Your task to perform on an android device: Nike Air Max 2020 shoes on Nike.com Image 0: 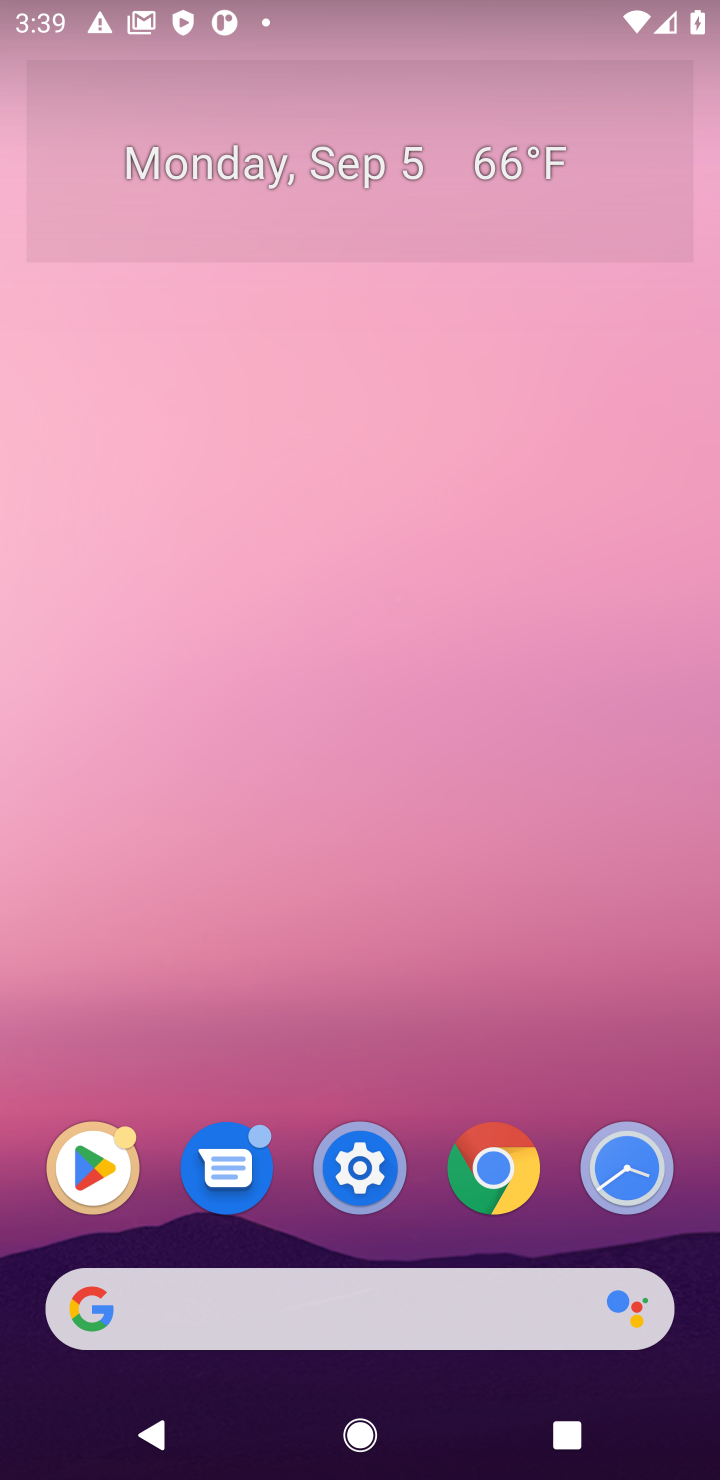
Step 0: click (310, 1309)
Your task to perform on an android device: Nike Air Max 2020 shoes on Nike.com Image 1: 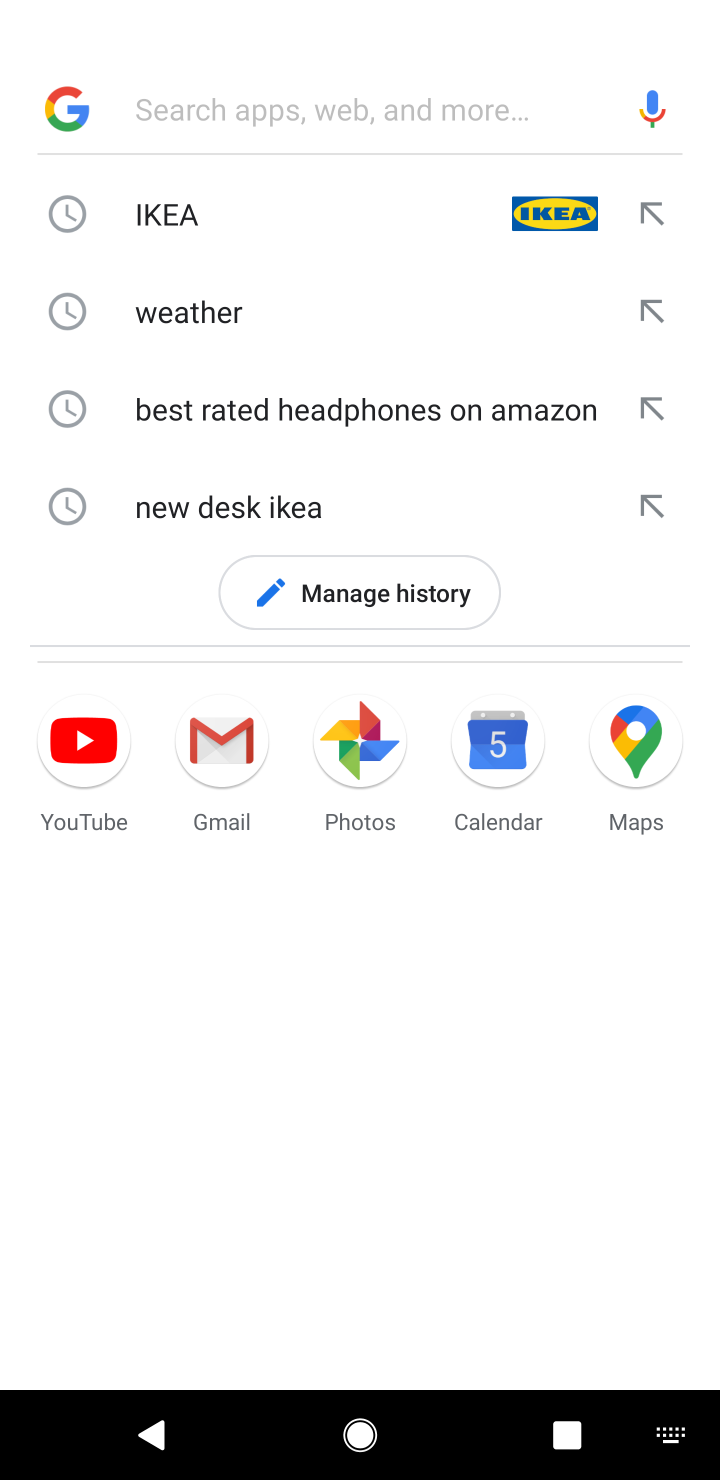
Step 1: type "nike"
Your task to perform on an android device: Nike Air Max 2020 shoes on Nike.com Image 2: 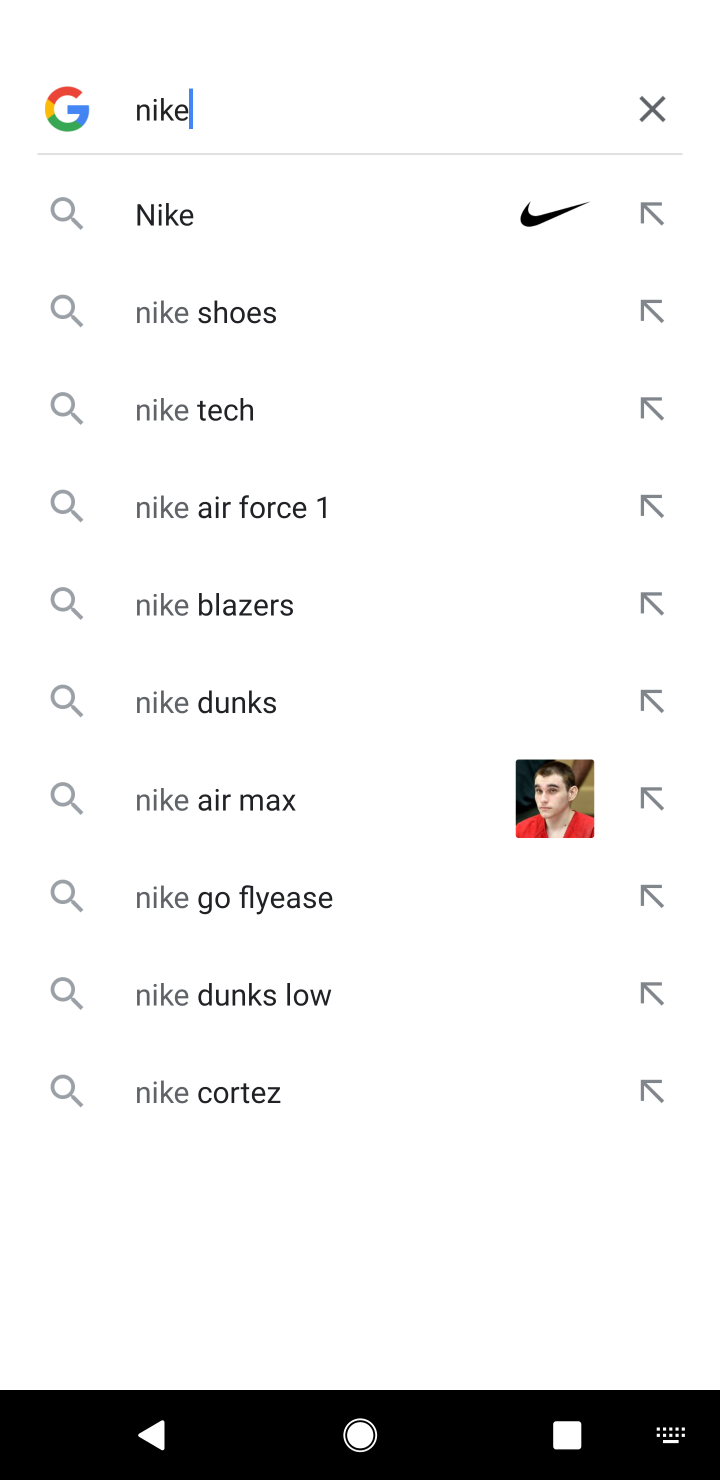
Step 2: click (535, 204)
Your task to perform on an android device: Nike Air Max 2020 shoes on Nike.com Image 3: 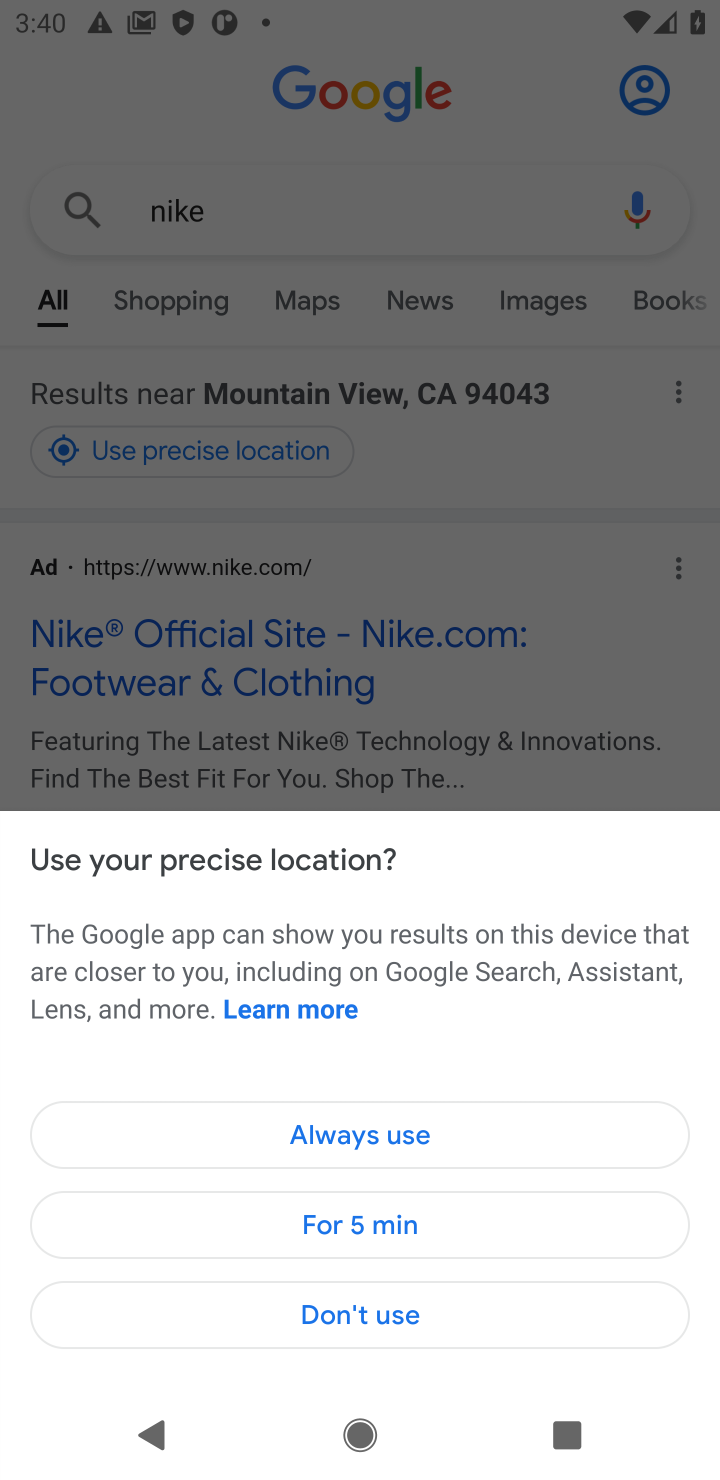
Step 3: click (386, 1144)
Your task to perform on an android device: Nike Air Max 2020 shoes on Nike.com Image 4: 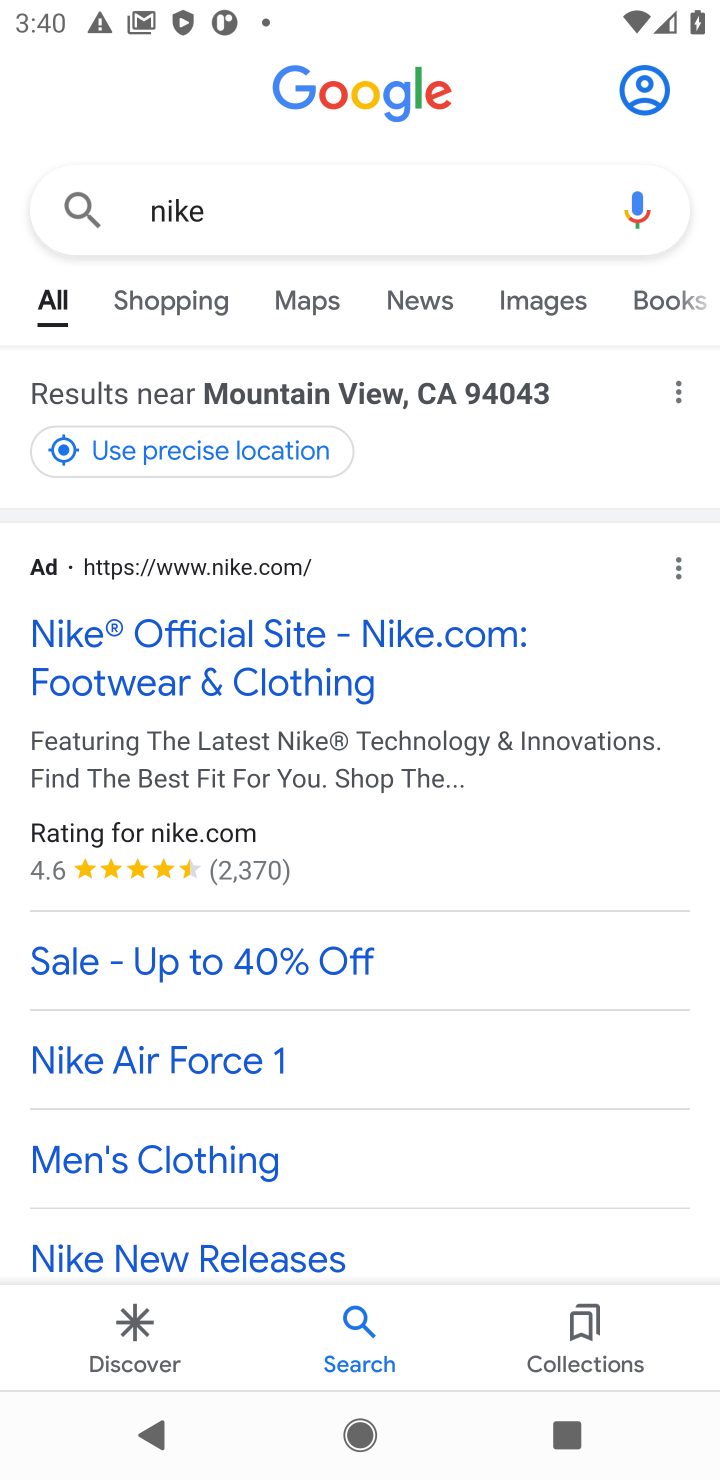
Step 4: click (319, 659)
Your task to perform on an android device: Nike Air Max 2020 shoes on Nike.com Image 5: 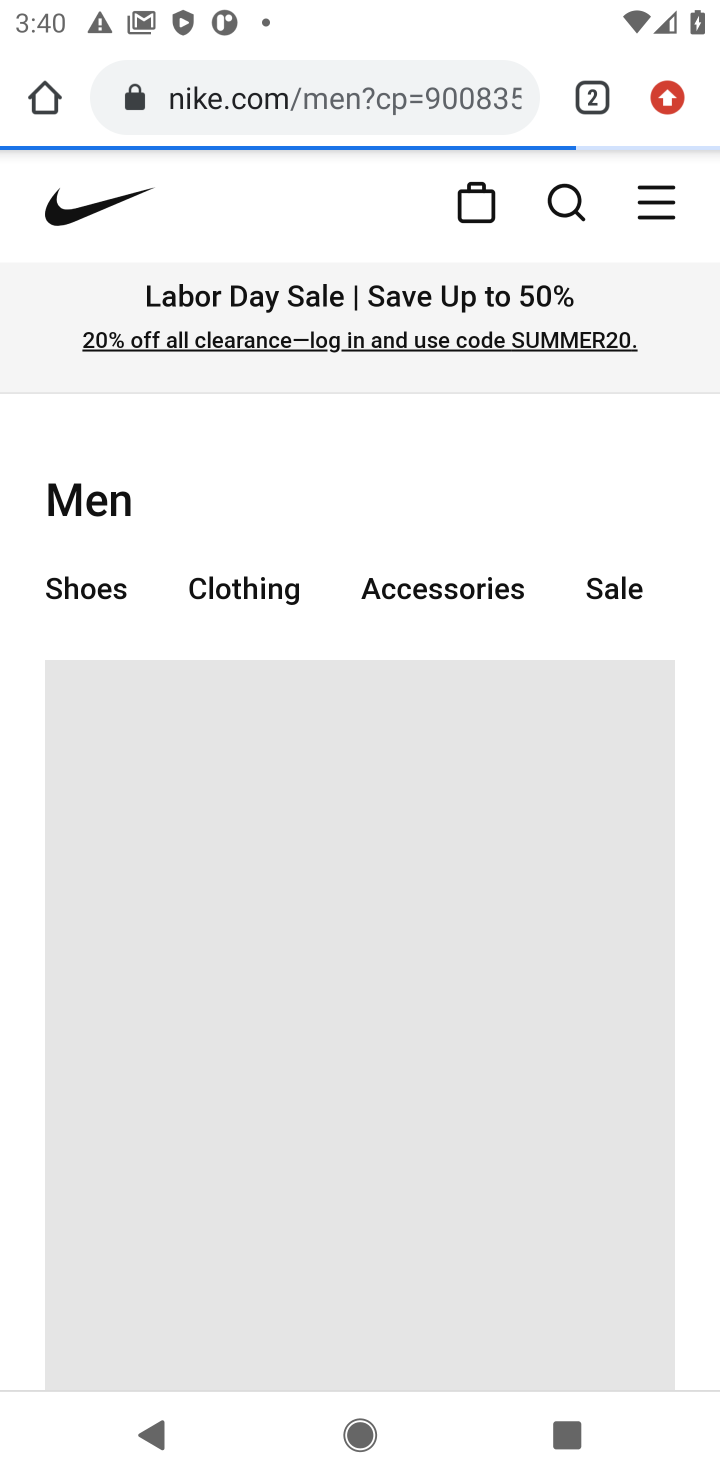
Step 5: click (569, 208)
Your task to perform on an android device: Nike Air Max 2020 shoes on Nike.com Image 6: 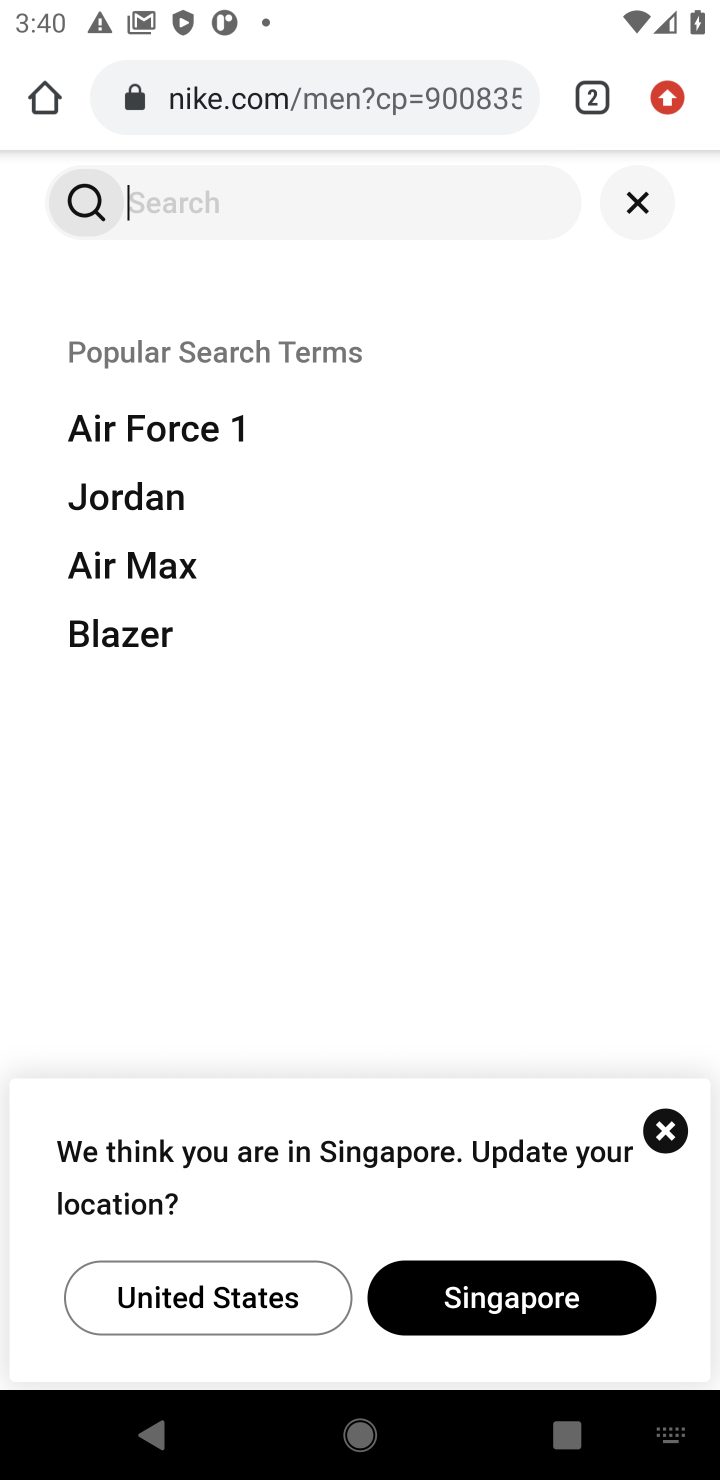
Step 6: type "Nike Air Max 2020"
Your task to perform on an android device: Nike Air Max 2020 shoes on Nike.com Image 7: 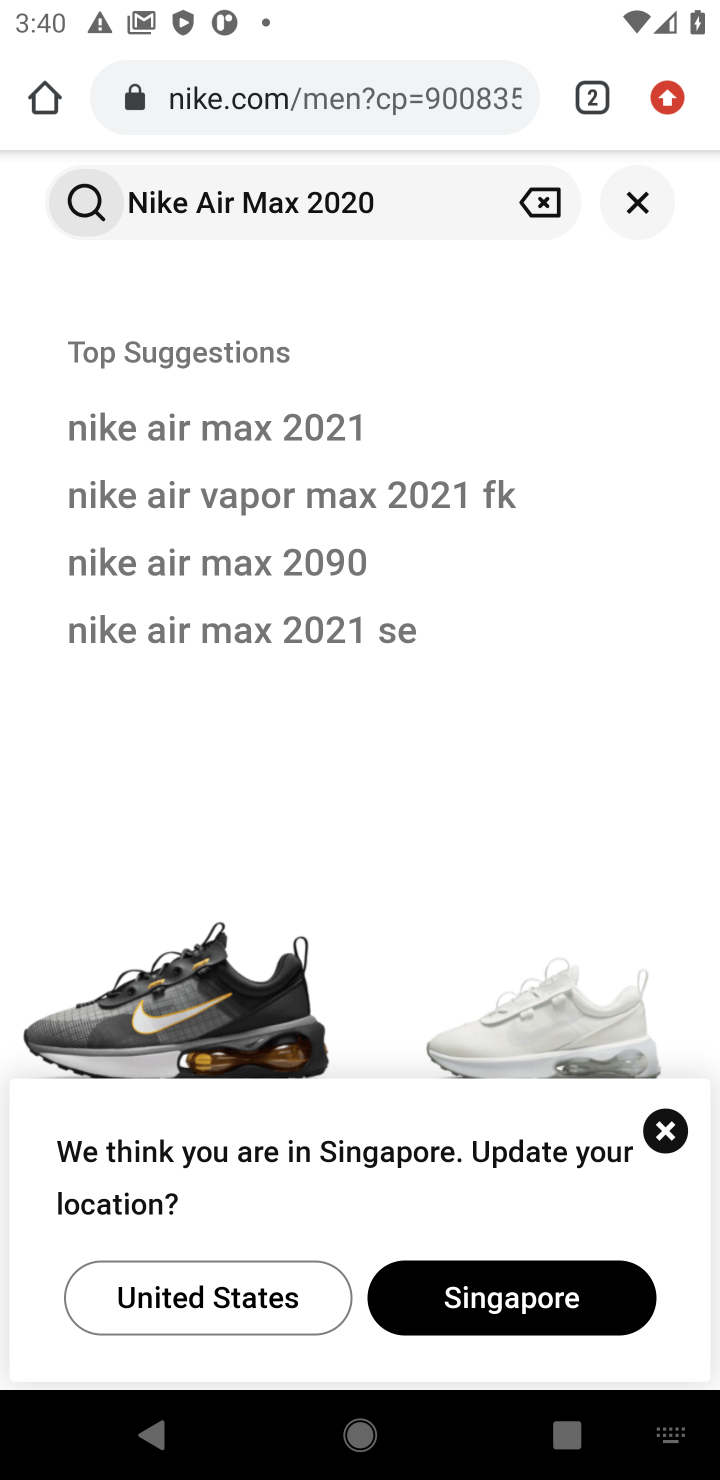
Step 7: task complete